Your task to perform on an android device: clear history in the chrome app Image 0: 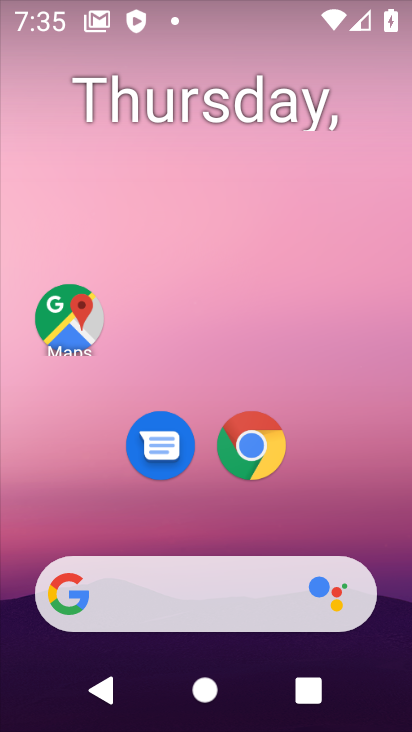
Step 0: click (268, 445)
Your task to perform on an android device: clear history in the chrome app Image 1: 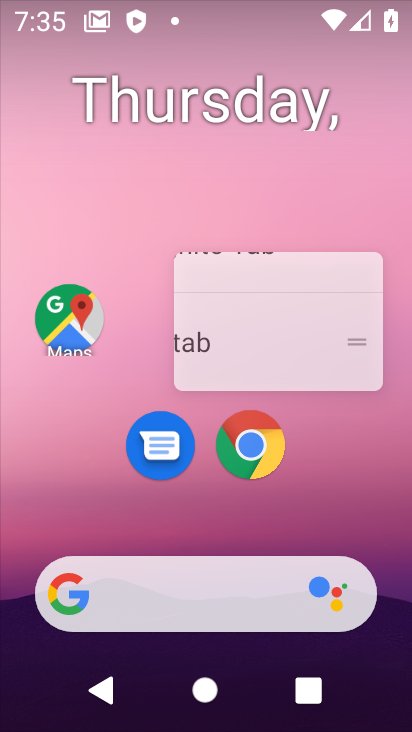
Step 1: click (268, 445)
Your task to perform on an android device: clear history in the chrome app Image 2: 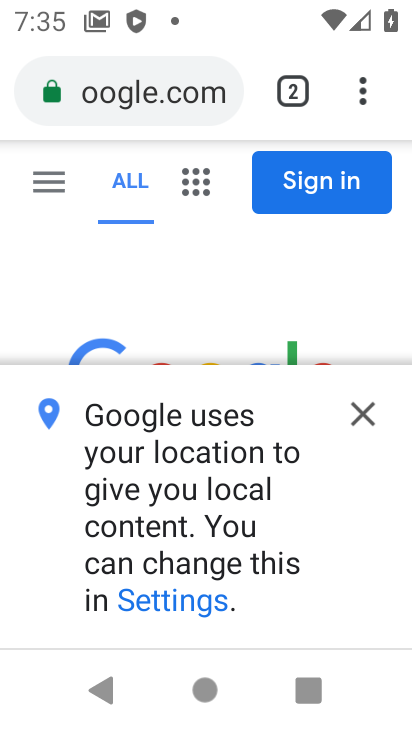
Step 2: click (366, 83)
Your task to perform on an android device: clear history in the chrome app Image 3: 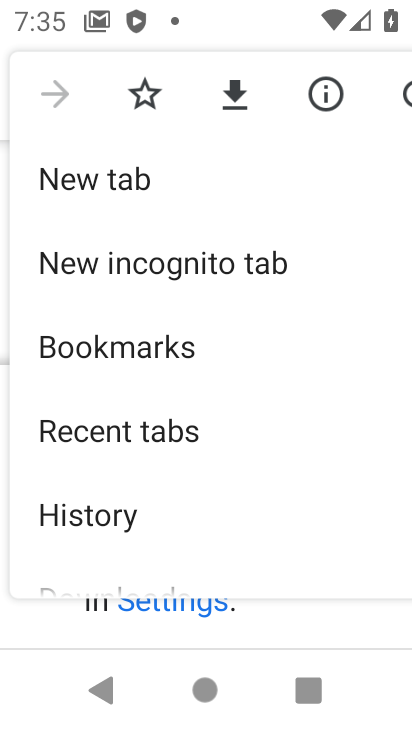
Step 3: click (114, 511)
Your task to perform on an android device: clear history in the chrome app Image 4: 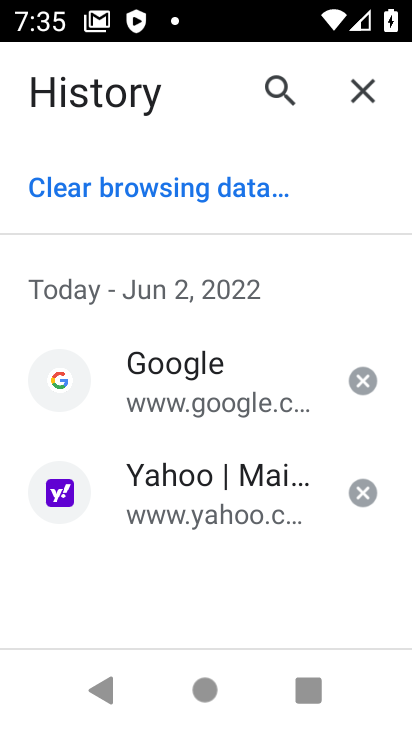
Step 4: click (219, 200)
Your task to perform on an android device: clear history in the chrome app Image 5: 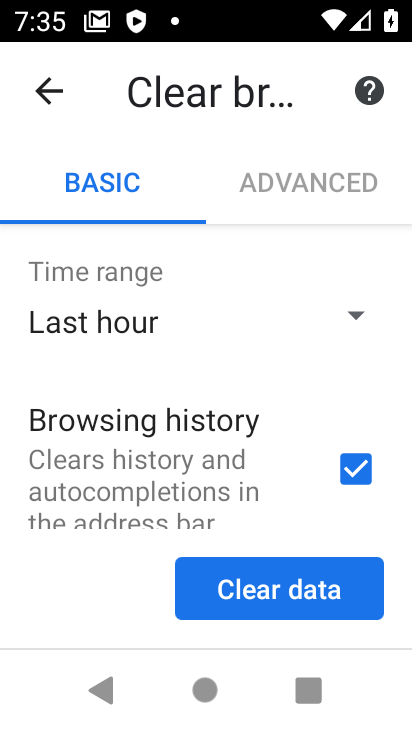
Step 5: click (230, 582)
Your task to perform on an android device: clear history in the chrome app Image 6: 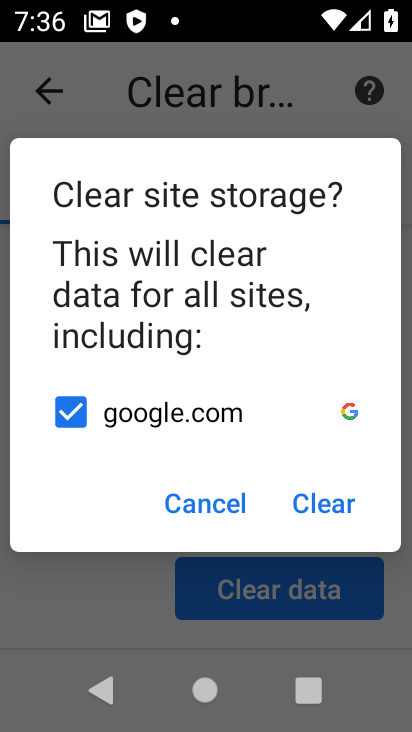
Step 6: click (325, 501)
Your task to perform on an android device: clear history in the chrome app Image 7: 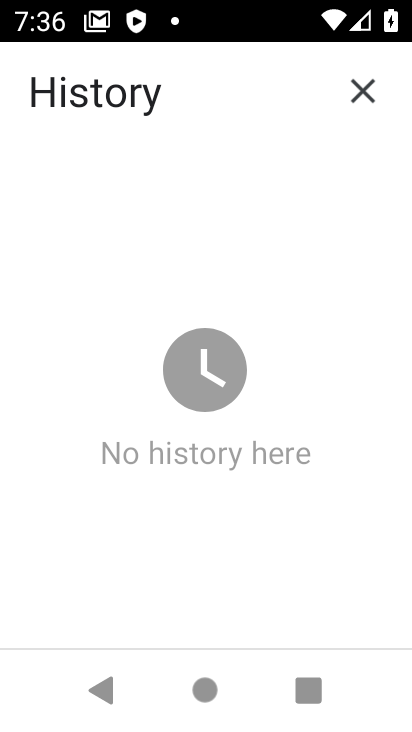
Step 7: task complete